Your task to perform on an android device: Is it going to rain this weekend? Image 0: 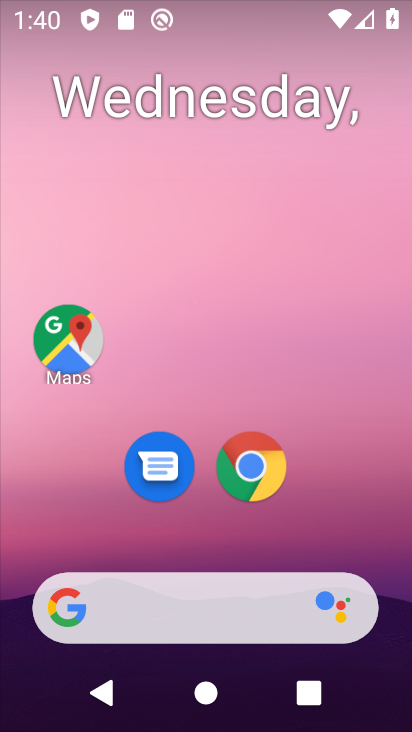
Step 0: drag from (328, 391) to (294, 16)
Your task to perform on an android device: Is it going to rain this weekend? Image 1: 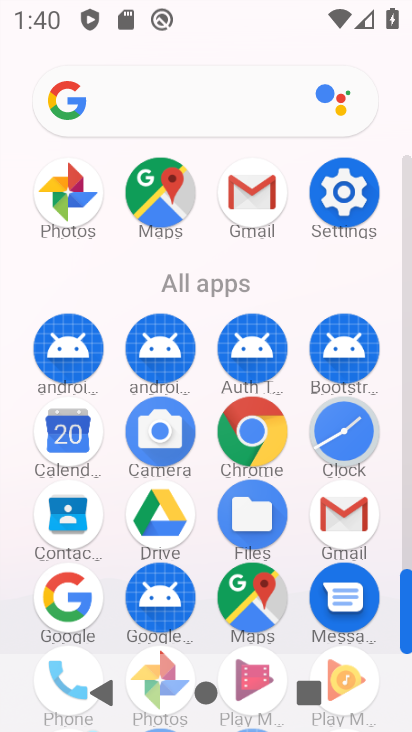
Step 1: drag from (15, 526) to (19, 263)
Your task to perform on an android device: Is it going to rain this weekend? Image 2: 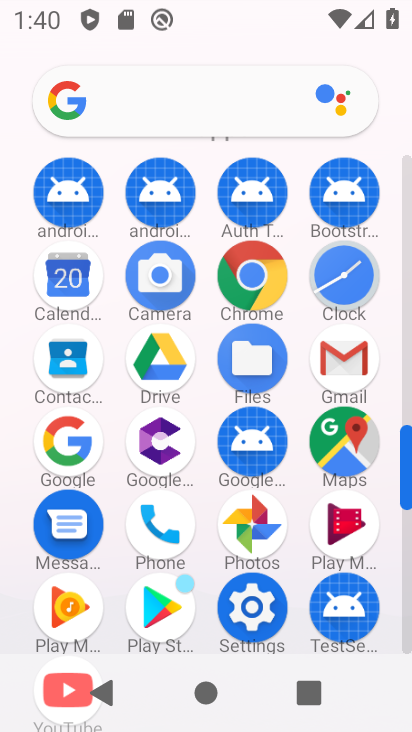
Step 2: drag from (1, 206) to (0, 369)
Your task to perform on an android device: Is it going to rain this weekend? Image 3: 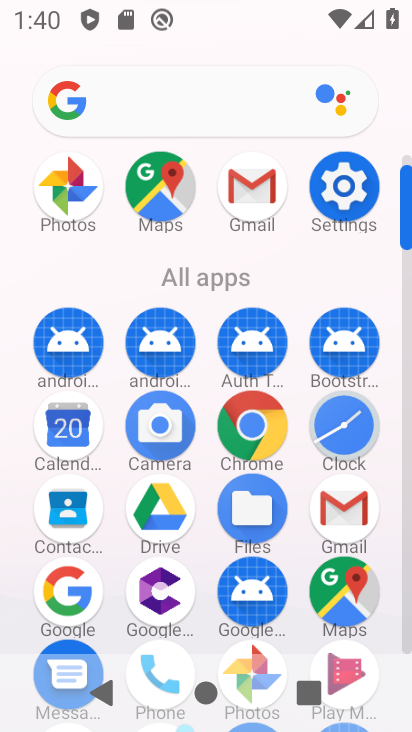
Step 3: click (204, 95)
Your task to perform on an android device: Is it going to rain this weekend? Image 4: 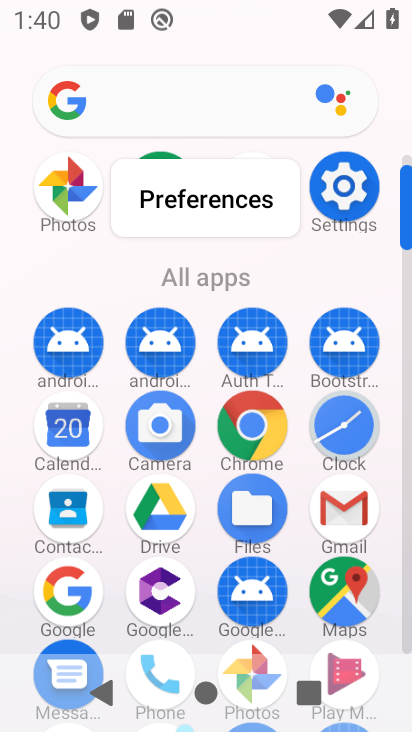
Step 4: click (204, 95)
Your task to perform on an android device: Is it going to rain this weekend? Image 5: 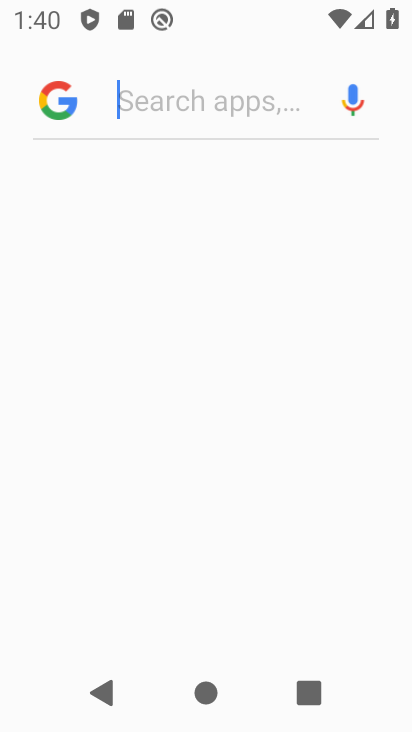
Step 5: click (255, 98)
Your task to perform on an android device: Is it going to rain this weekend? Image 6: 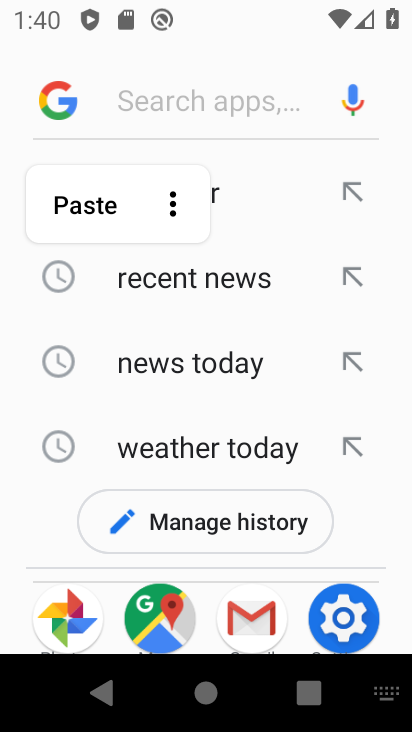
Step 6: click (252, 181)
Your task to perform on an android device: Is it going to rain this weekend? Image 7: 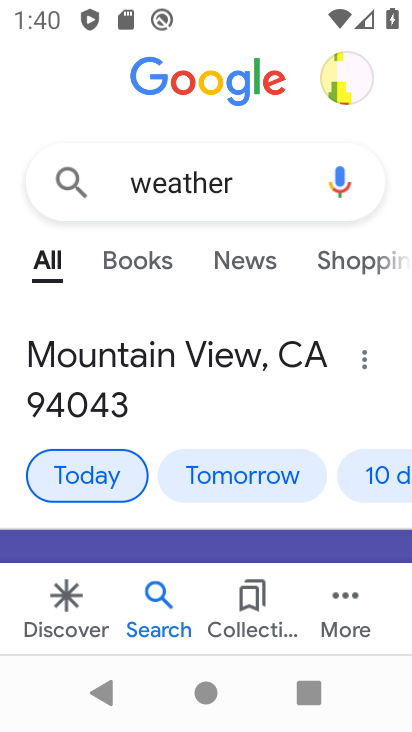
Step 7: task complete